Your task to perform on an android device: What's the weather? Image 0: 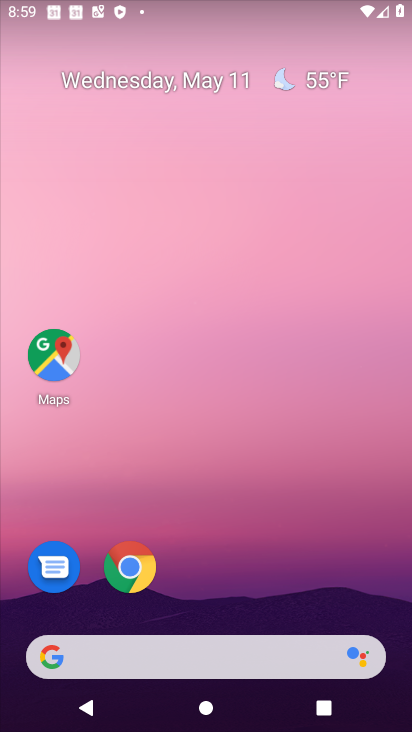
Step 0: click (324, 71)
Your task to perform on an android device: What's the weather? Image 1: 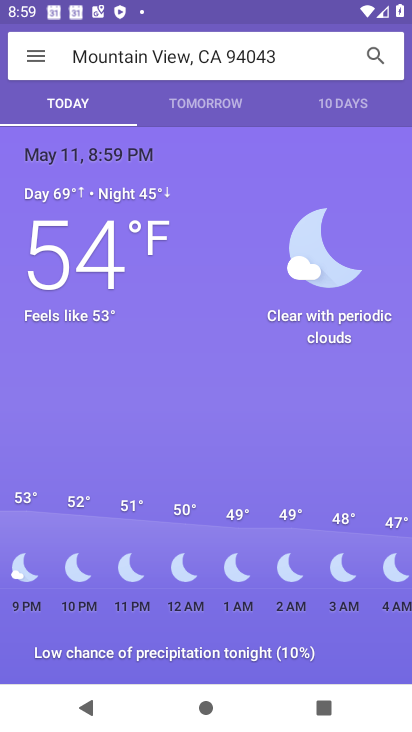
Step 1: task complete